Your task to perform on an android device: open app "DuckDuckGo Privacy Browser" (install if not already installed), go to login, and select forgot password Image 0: 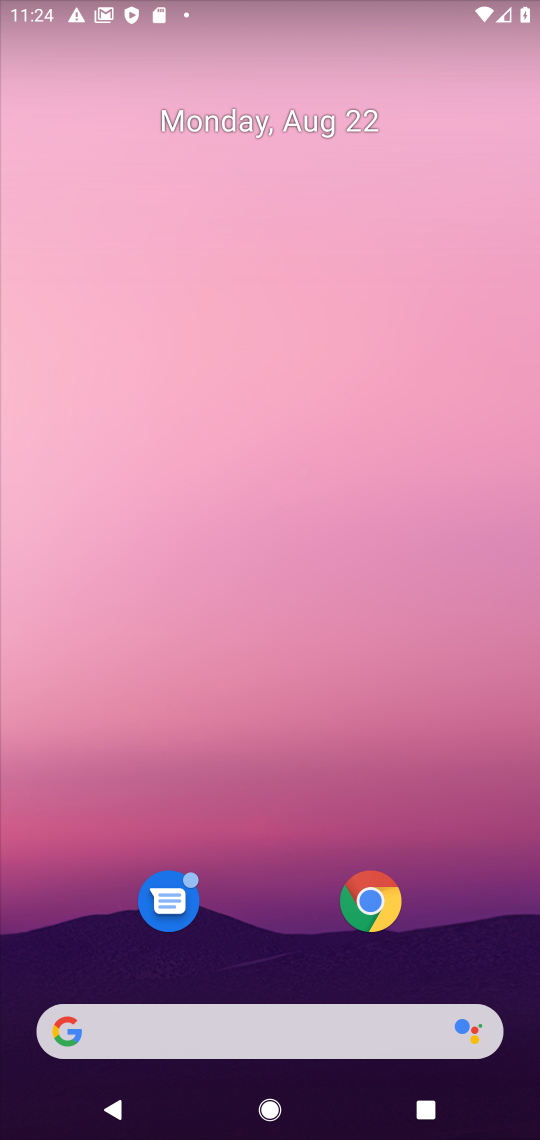
Step 0: drag from (240, 885) to (21, 47)
Your task to perform on an android device: open app "DuckDuckGo Privacy Browser" (install if not already installed), go to login, and select forgot password Image 1: 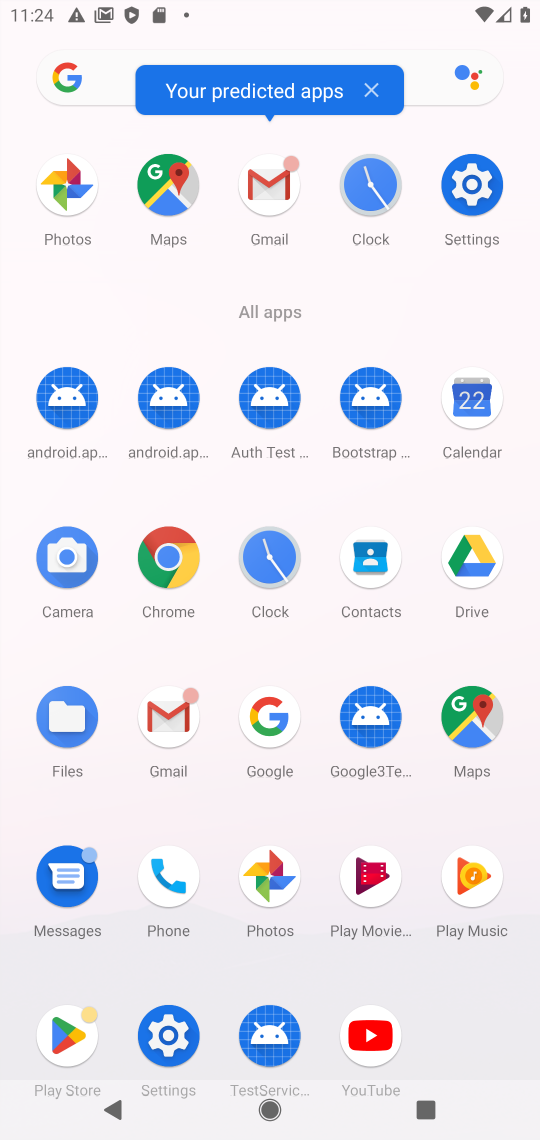
Step 1: click (74, 1031)
Your task to perform on an android device: open app "DuckDuckGo Privacy Browser" (install if not already installed), go to login, and select forgot password Image 2: 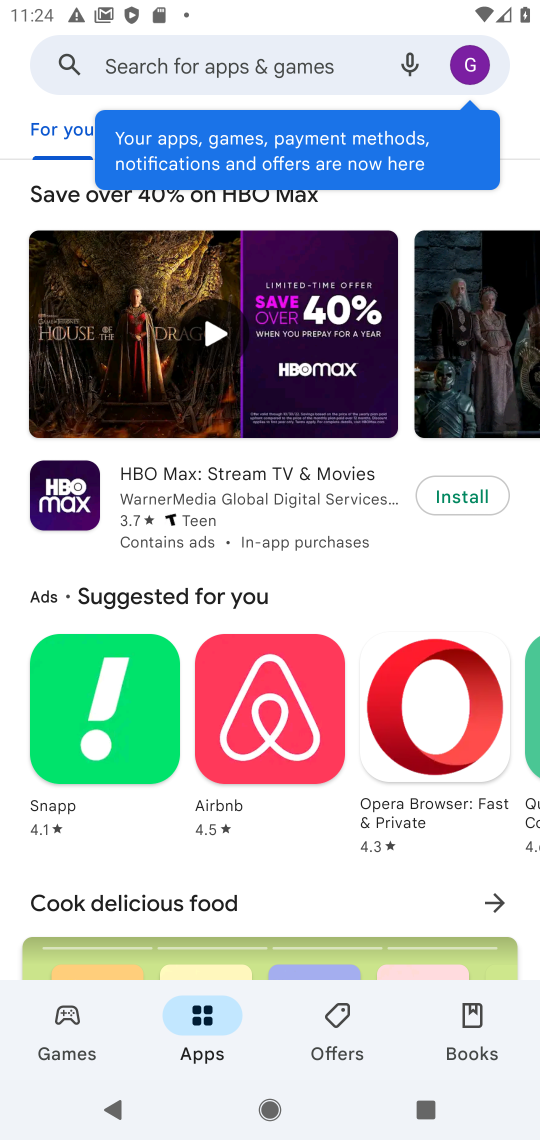
Step 2: click (280, 77)
Your task to perform on an android device: open app "DuckDuckGo Privacy Browser" (install if not already installed), go to login, and select forgot password Image 3: 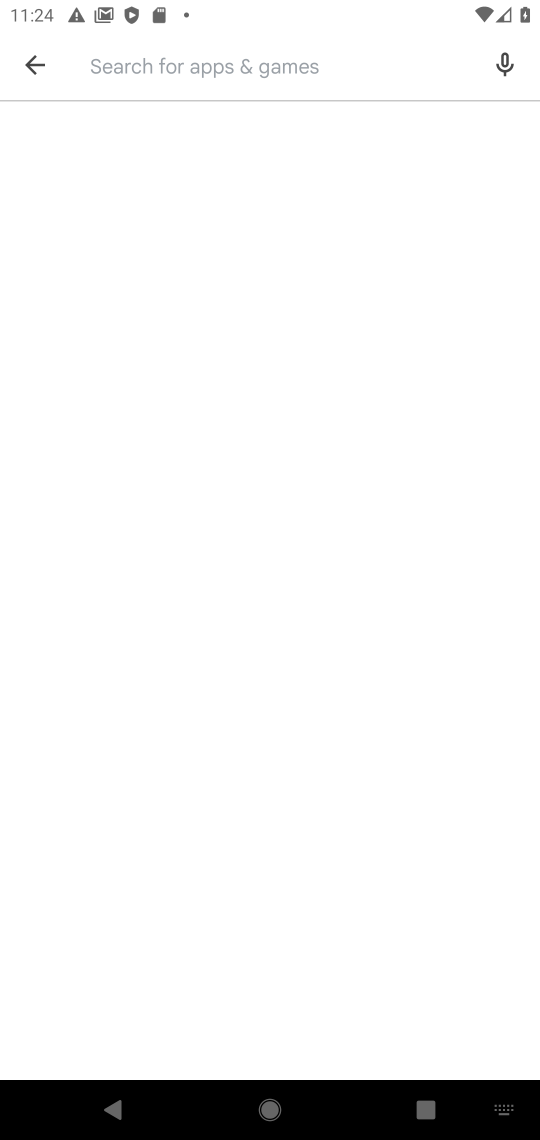
Step 3: type "duckduck go"
Your task to perform on an android device: open app "DuckDuckGo Privacy Browser" (install if not already installed), go to login, and select forgot password Image 4: 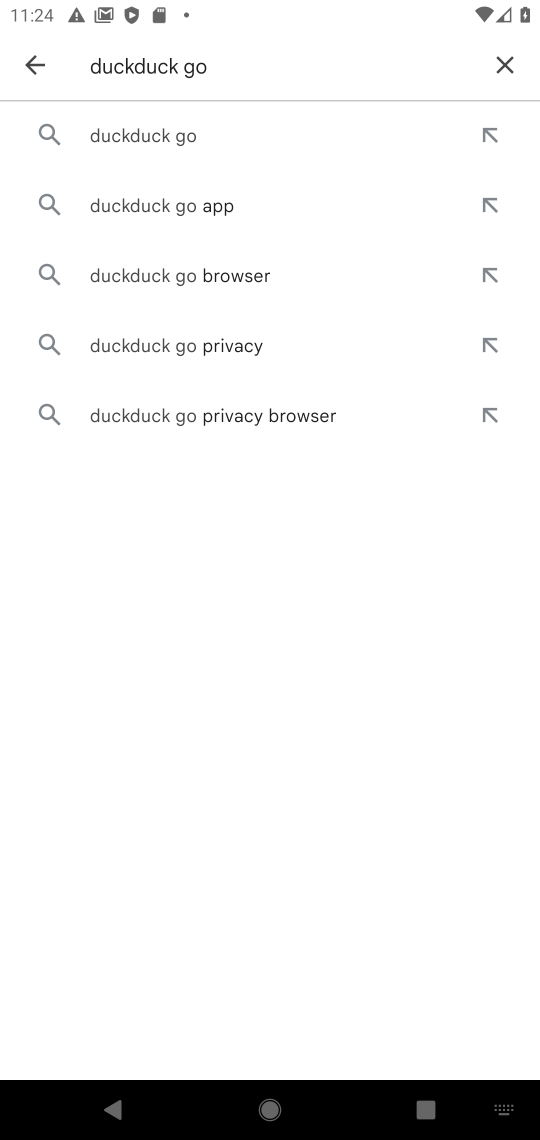
Step 4: click (154, 125)
Your task to perform on an android device: open app "DuckDuckGo Privacy Browser" (install if not already installed), go to login, and select forgot password Image 5: 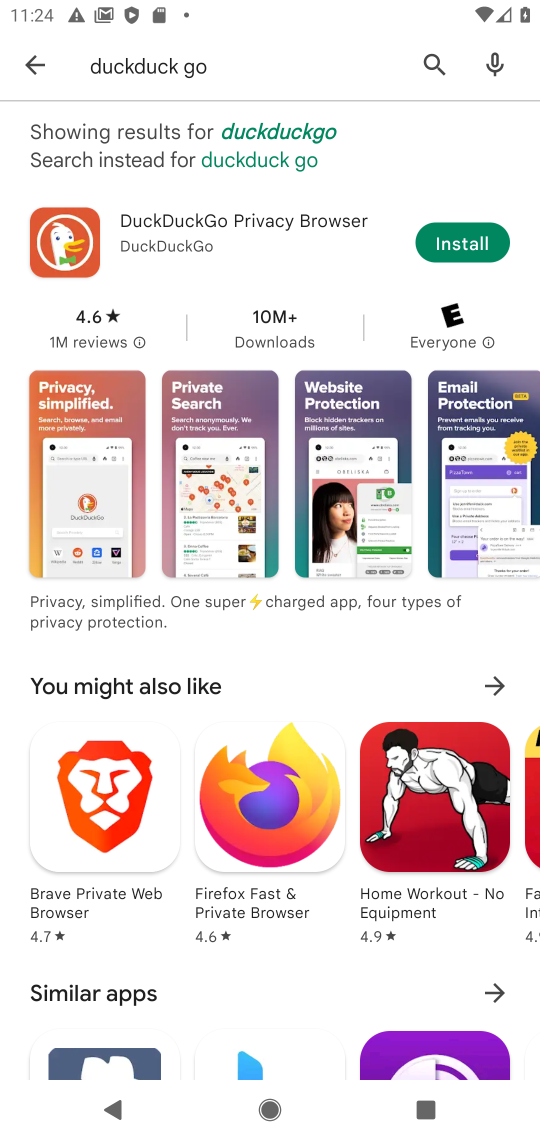
Step 5: click (472, 243)
Your task to perform on an android device: open app "DuckDuckGo Privacy Browser" (install if not already installed), go to login, and select forgot password Image 6: 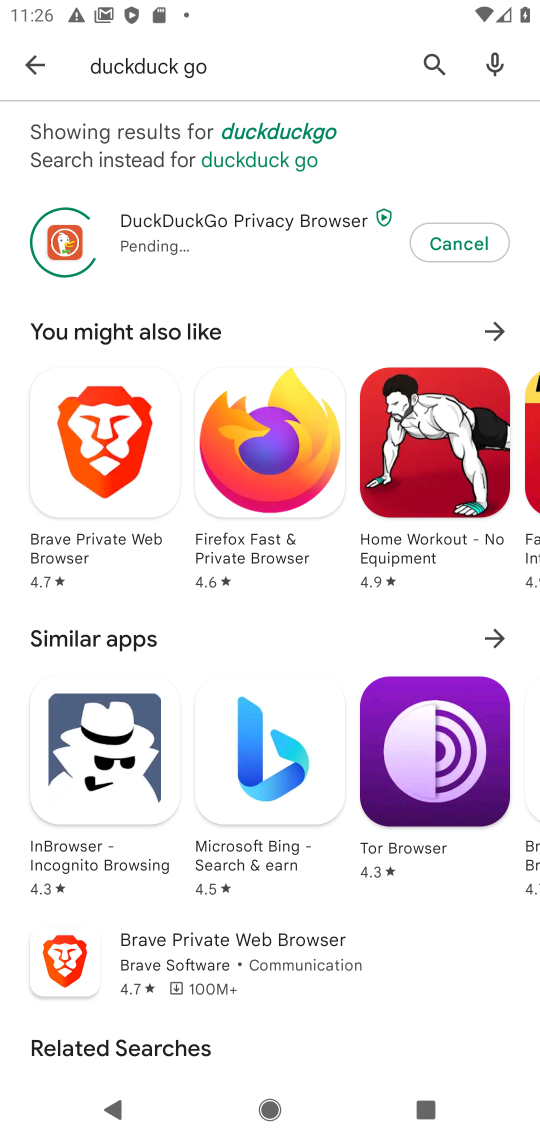
Step 6: click (21, 64)
Your task to perform on an android device: open app "DuckDuckGo Privacy Browser" (install if not already installed), go to login, and select forgot password Image 7: 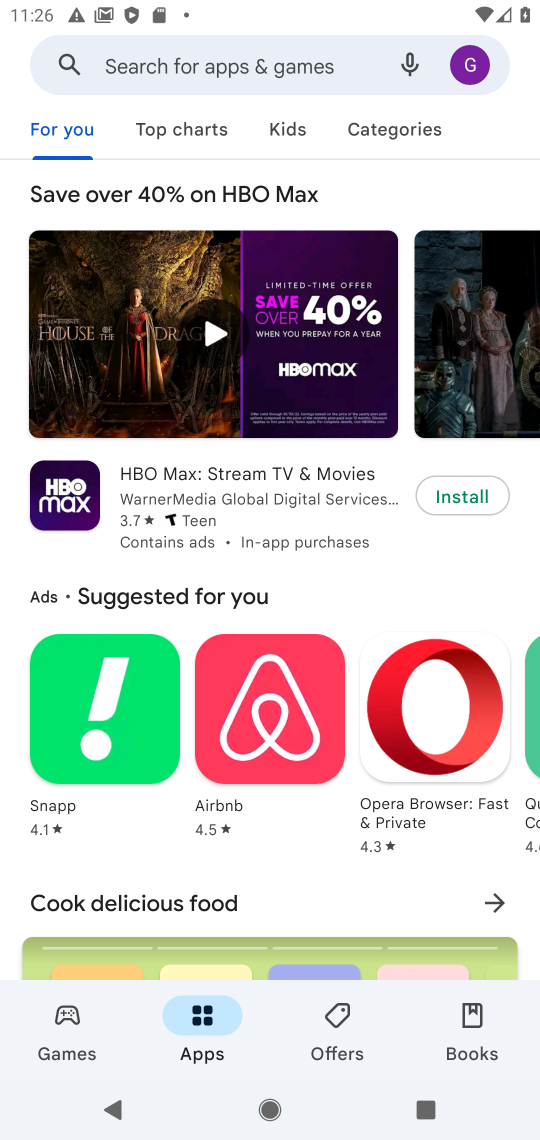
Step 7: click (472, 66)
Your task to perform on an android device: open app "DuckDuckGo Privacy Browser" (install if not already installed), go to login, and select forgot password Image 8: 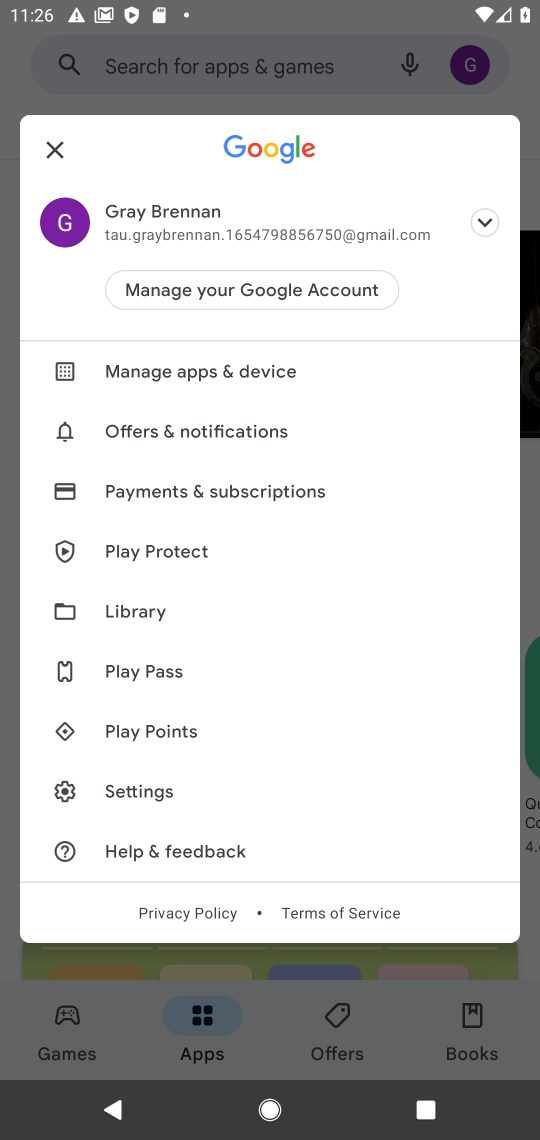
Step 8: click (182, 378)
Your task to perform on an android device: open app "DuckDuckGo Privacy Browser" (install if not already installed), go to login, and select forgot password Image 9: 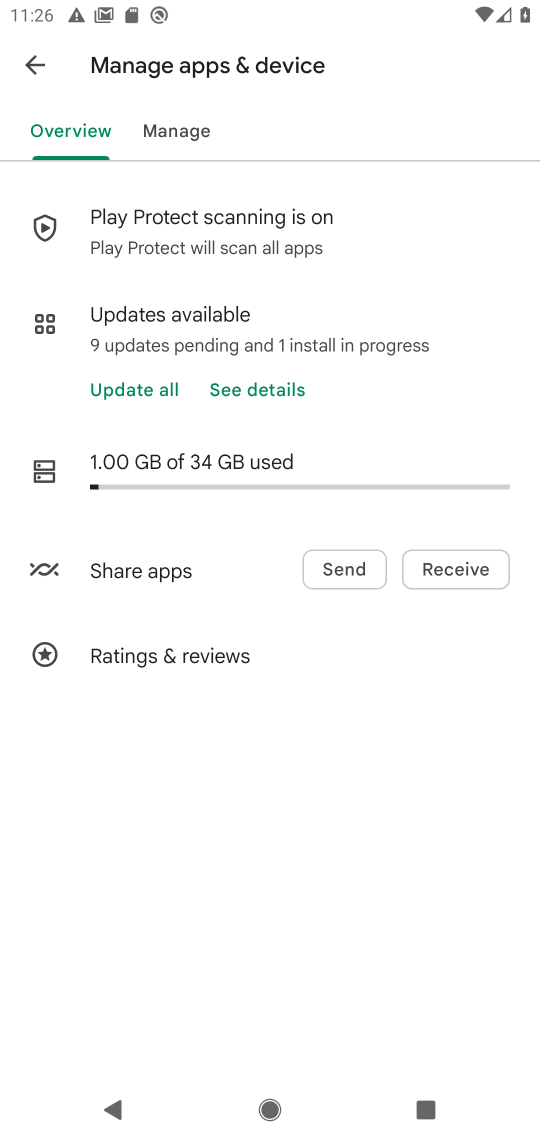
Step 9: click (232, 352)
Your task to perform on an android device: open app "DuckDuckGo Privacy Browser" (install if not already installed), go to login, and select forgot password Image 10: 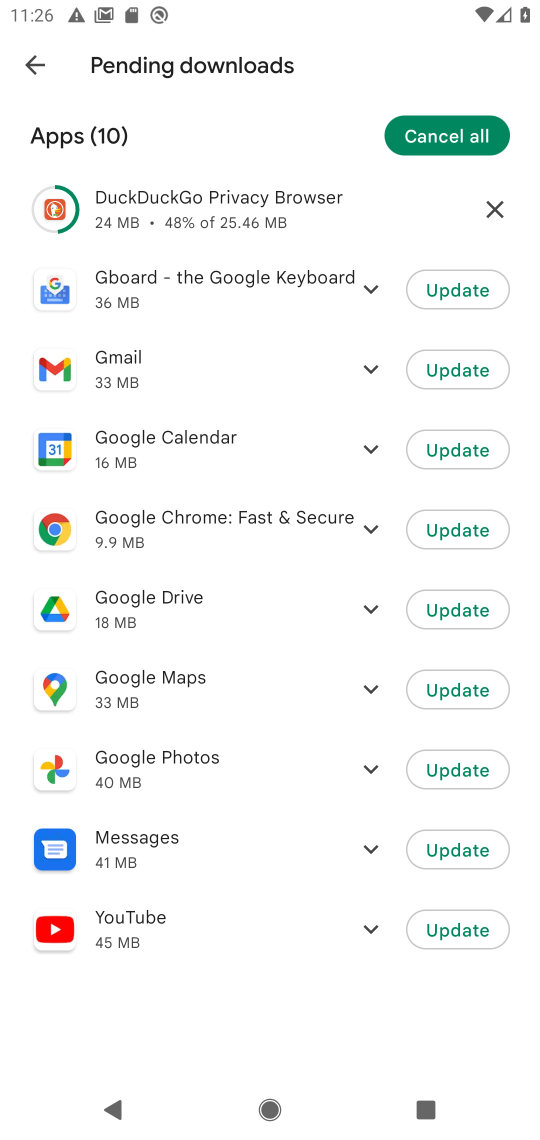
Step 10: click (248, 206)
Your task to perform on an android device: open app "DuckDuckGo Privacy Browser" (install if not already installed), go to login, and select forgot password Image 11: 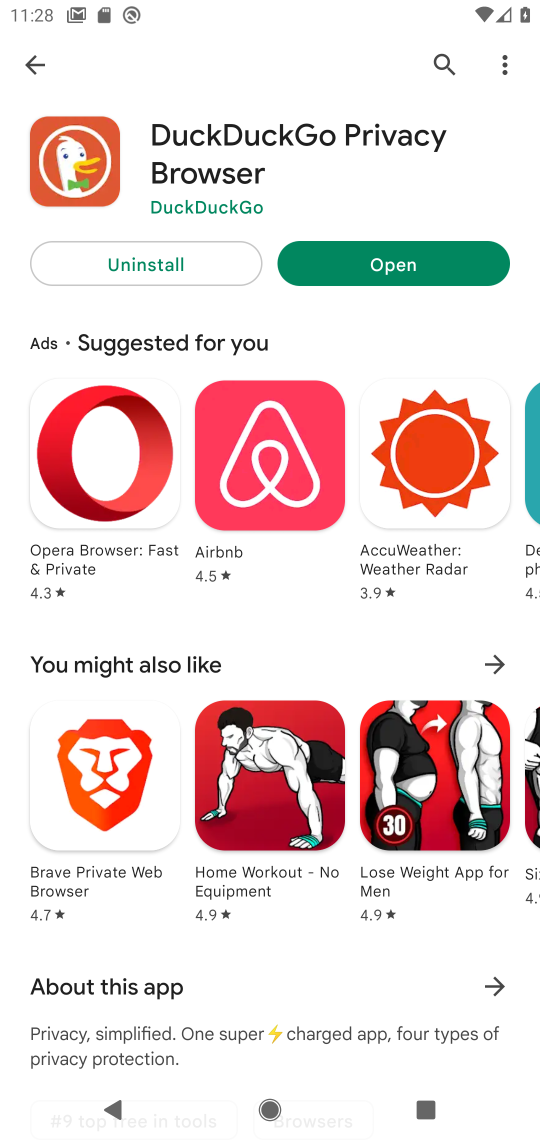
Step 11: click (424, 249)
Your task to perform on an android device: open app "DuckDuckGo Privacy Browser" (install if not already installed), go to login, and select forgot password Image 12: 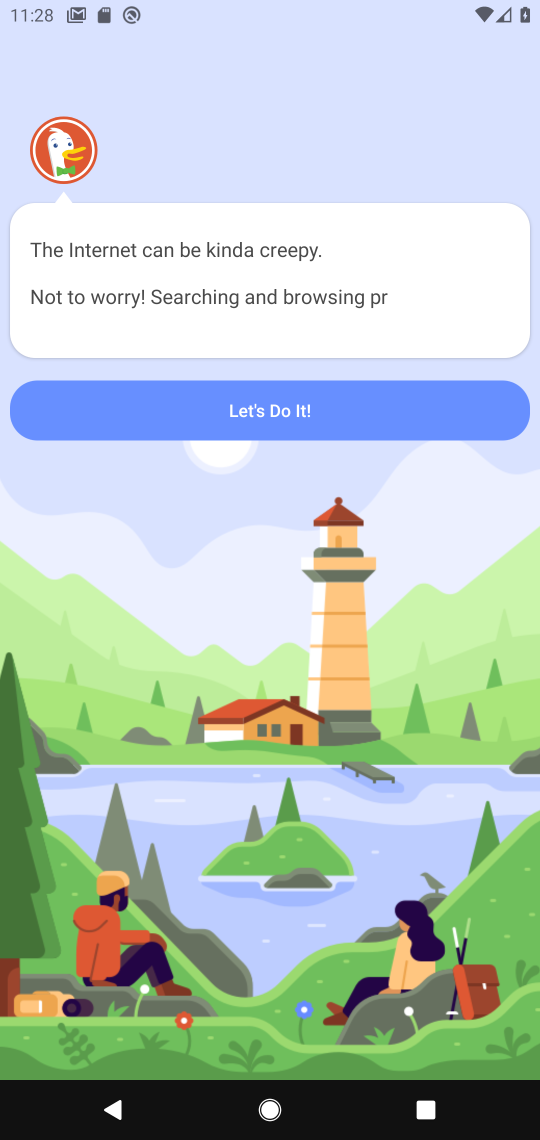
Step 12: click (67, 147)
Your task to perform on an android device: open app "DuckDuckGo Privacy Browser" (install if not already installed), go to login, and select forgot password Image 13: 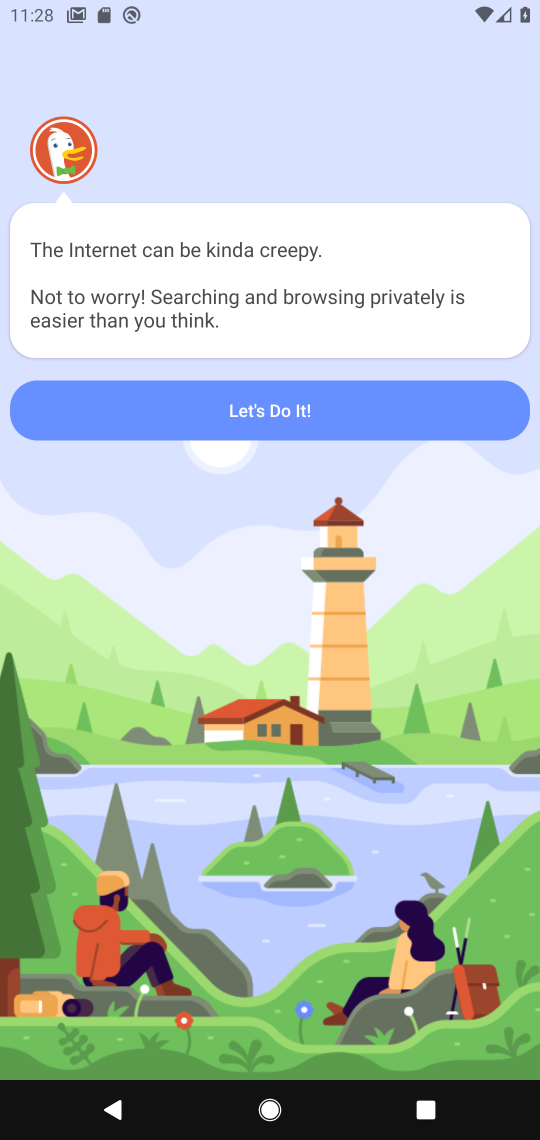
Step 13: click (257, 410)
Your task to perform on an android device: open app "DuckDuckGo Privacy Browser" (install if not already installed), go to login, and select forgot password Image 14: 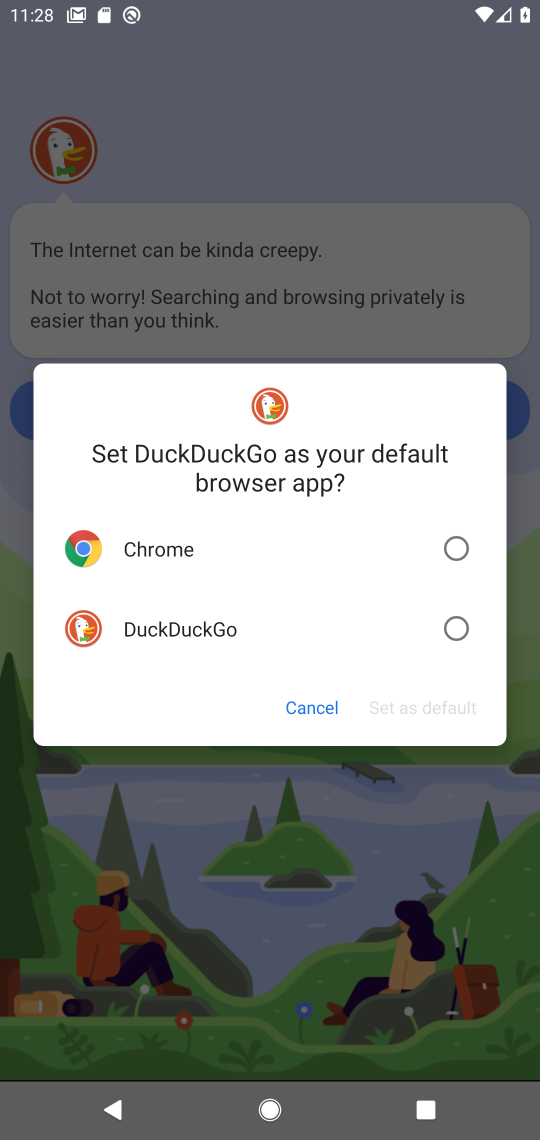
Step 14: click (179, 657)
Your task to perform on an android device: open app "DuckDuckGo Privacy Browser" (install if not already installed), go to login, and select forgot password Image 15: 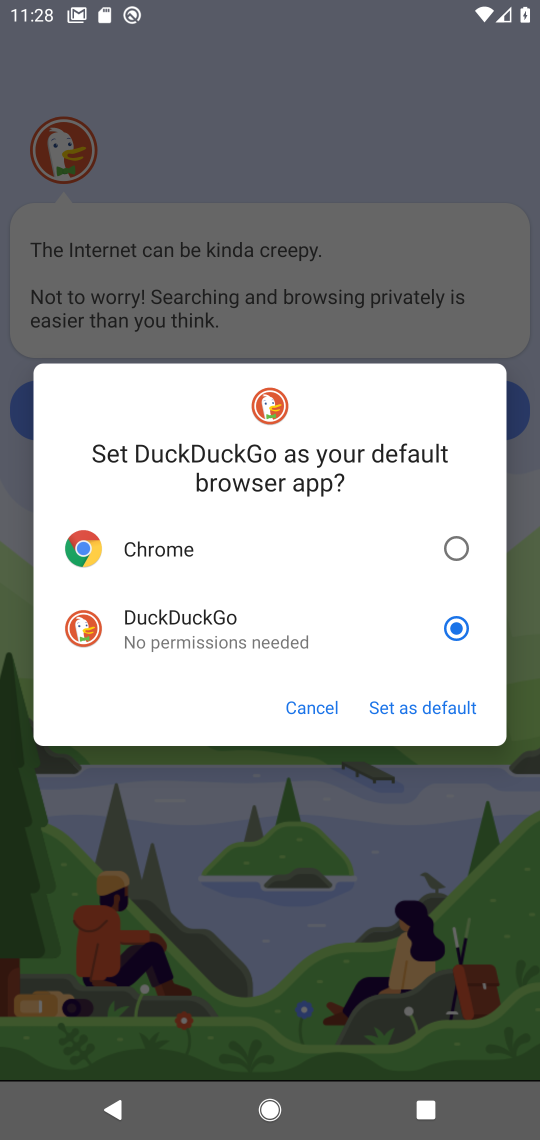
Step 15: click (453, 707)
Your task to perform on an android device: open app "DuckDuckGo Privacy Browser" (install if not already installed), go to login, and select forgot password Image 16: 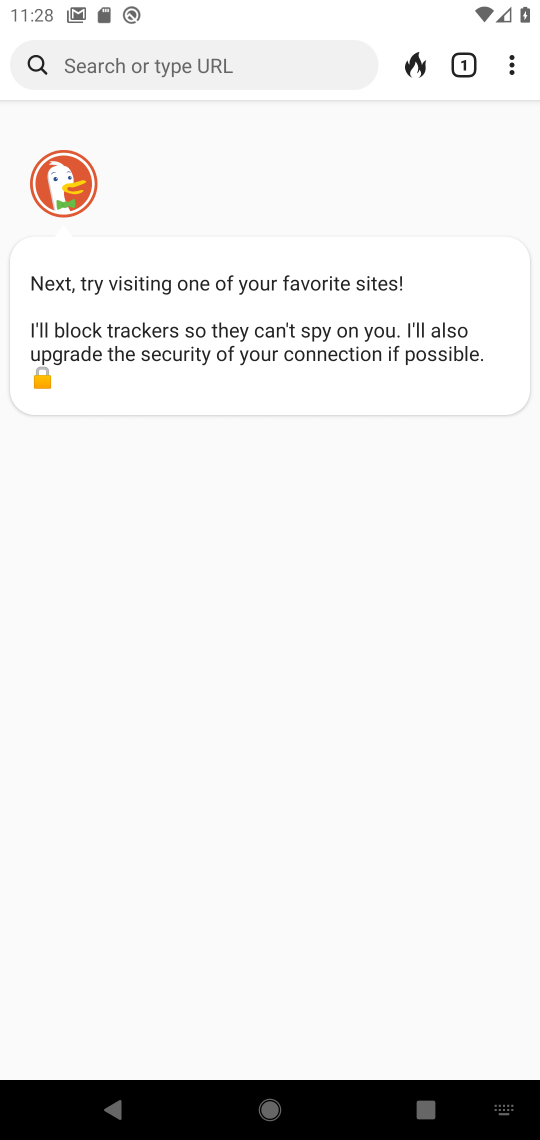
Step 16: click (510, 72)
Your task to perform on an android device: open app "DuckDuckGo Privacy Browser" (install if not already installed), go to login, and select forgot password Image 17: 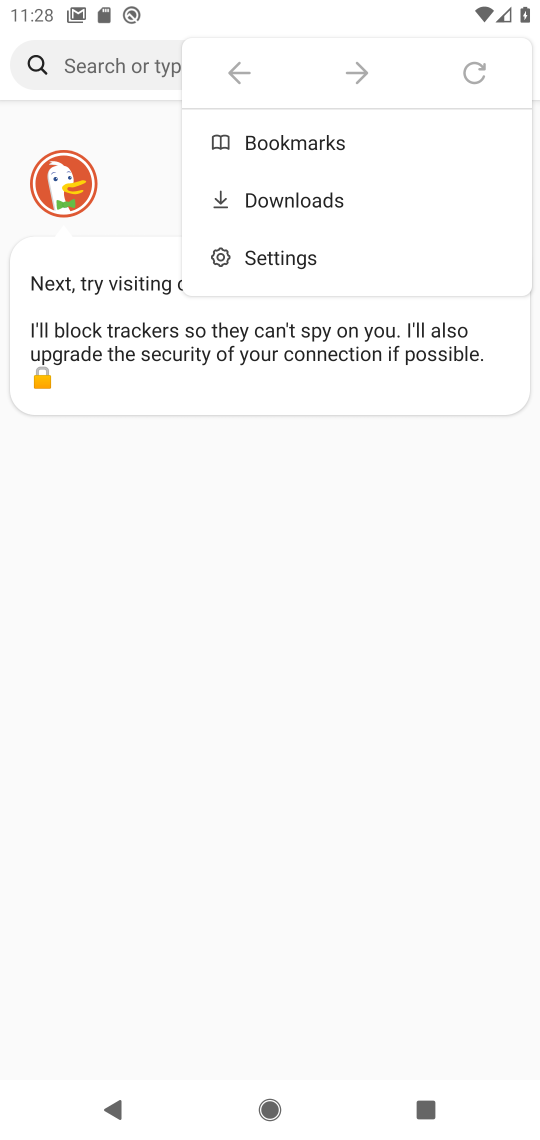
Step 17: click (263, 266)
Your task to perform on an android device: open app "DuckDuckGo Privacy Browser" (install if not already installed), go to login, and select forgot password Image 18: 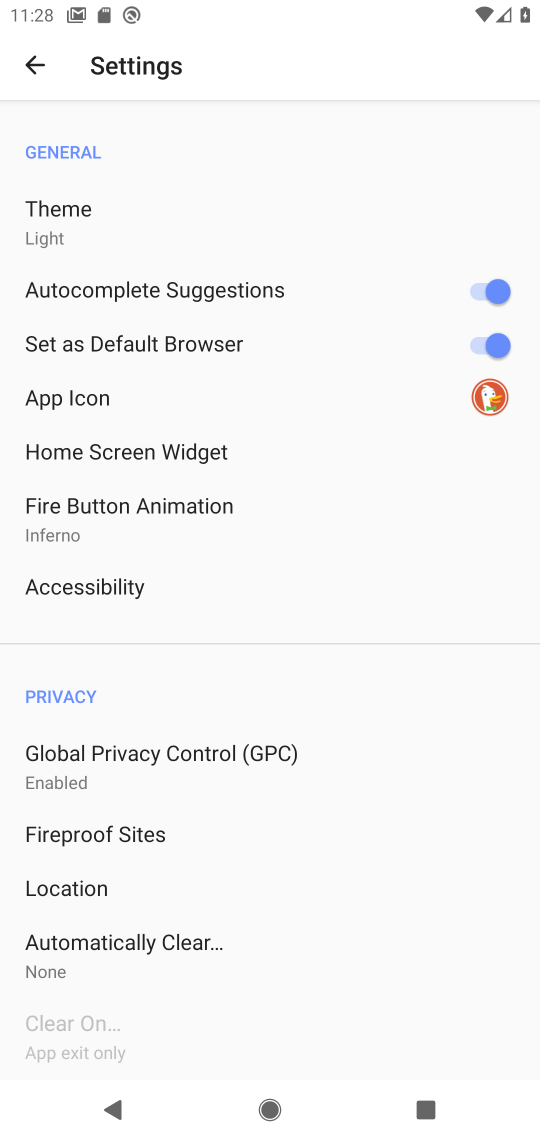
Step 18: task complete